Your task to perform on an android device: change the clock display to digital Image 0: 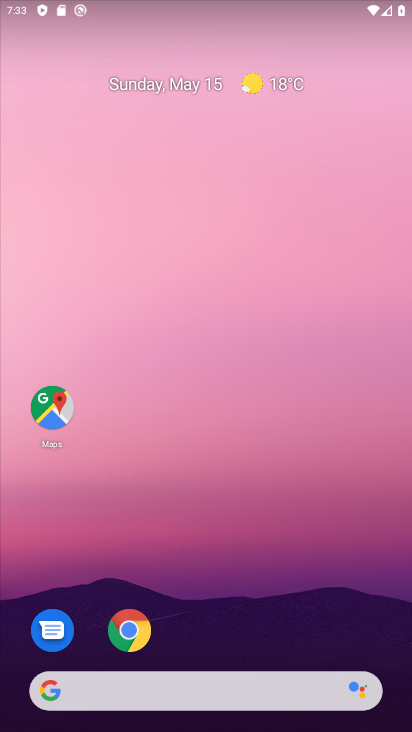
Step 0: drag from (198, 583) to (389, 23)
Your task to perform on an android device: change the clock display to digital Image 1: 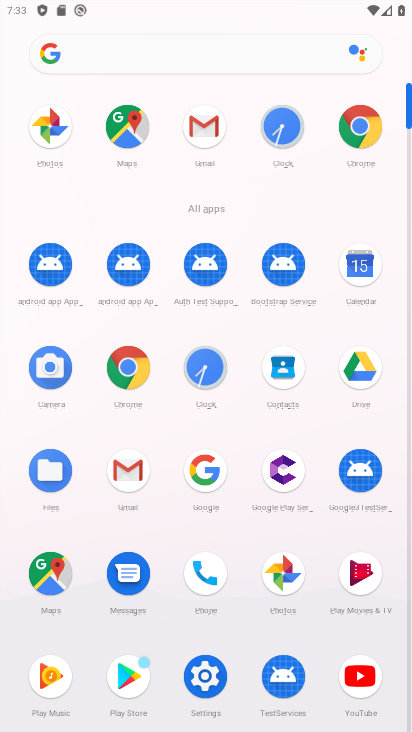
Step 1: click (215, 354)
Your task to perform on an android device: change the clock display to digital Image 2: 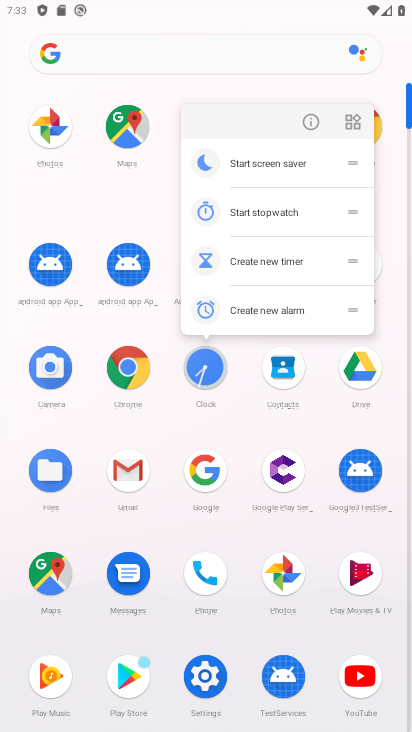
Step 2: click (309, 125)
Your task to perform on an android device: change the clock display to digital Image 3: 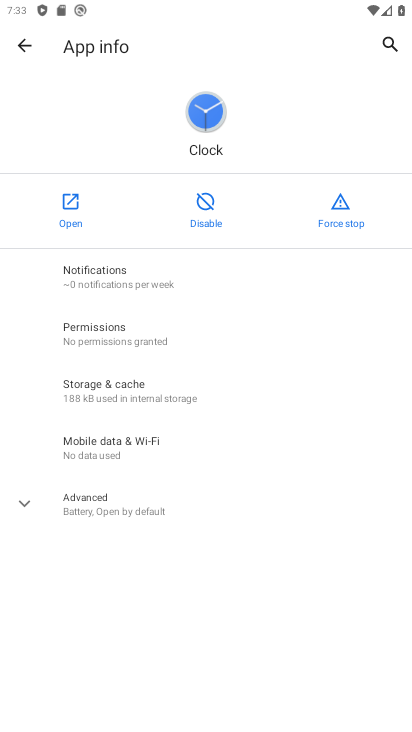
Step 3: click (51, 204)
Your task to perform on an android device: change the clock display to digital Image 4: 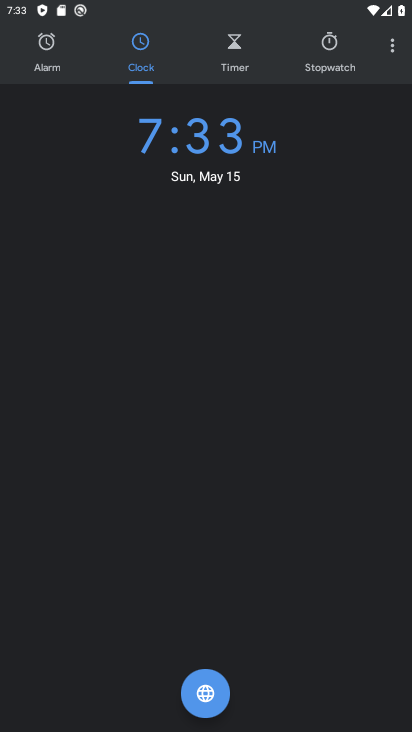
Step 4: click (389, 44)
Your task to perform on an android device: change the clock display to digital Image 5: 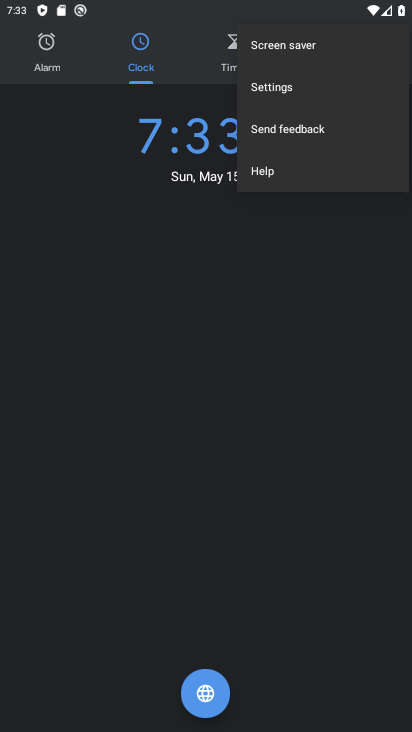
Step 5: click (297, 75)
Your task to perform on an android device: change the clock display to digital Image 6: 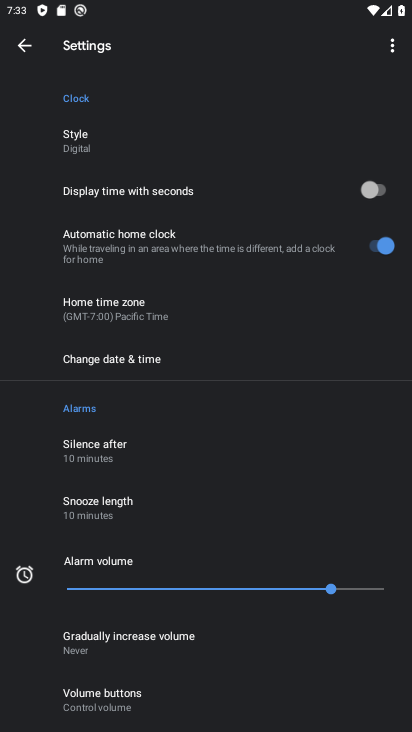
Step 6: click (150, 141)
Your task to perform on an android device: change the clock display to digital Image 7: 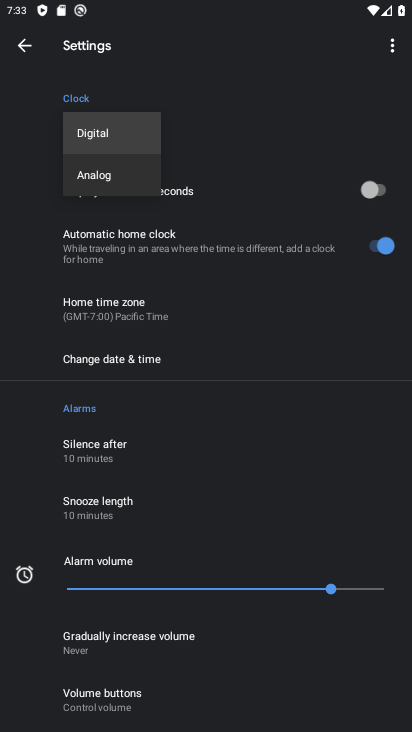
Step 7: click (113, 135)
Your task to perform on an android device: change the clock display to digital Image 8: 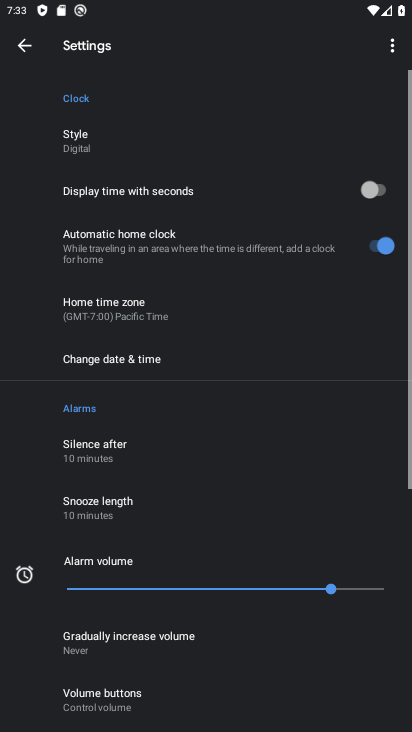
Step 8: task complete